Your task to perform on an android device: turn on translation in the chrome app Image 0: 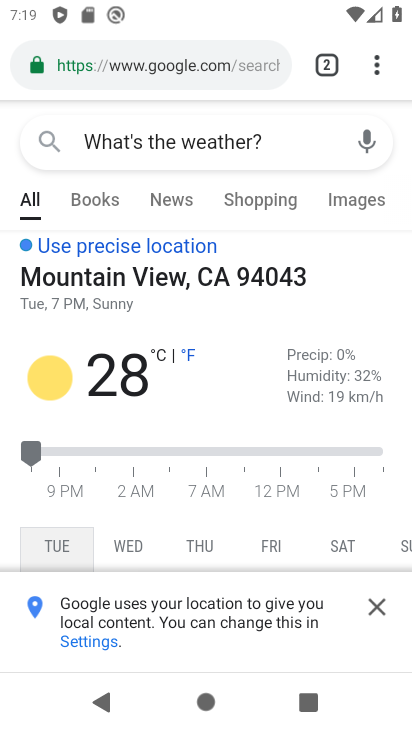
Step 0: press home button
Your task to perform on an android device: turn on translation in the chrome app Image 1: 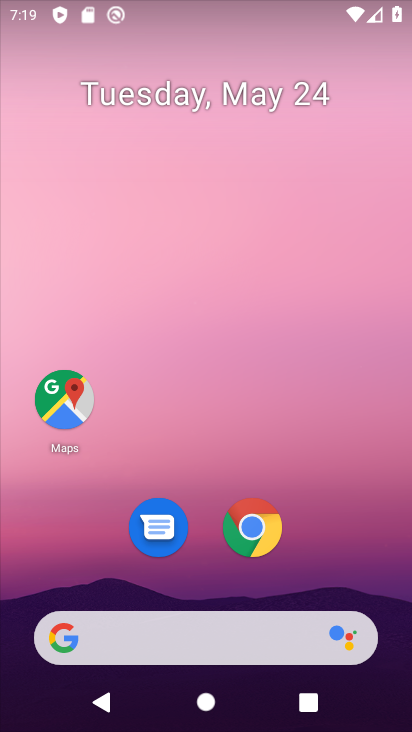
Step 1: drag from (267, 577) to (336, 158)
Your task to perform on an android device: turn on translation in the chrome app Image 2: 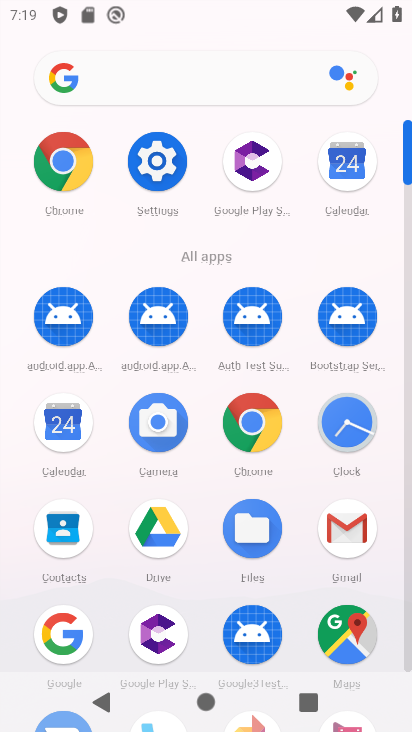
Step 2: click (69, 154)
Your task to perform on an android device: turn on translation in the chrome app Image 3: 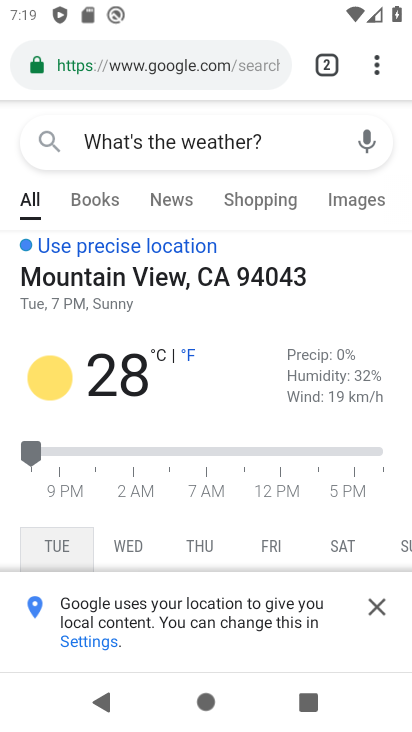
Step 3: click (385, 57)
Your task to perform on an android device: turn on translation in the chrome app Image 4: 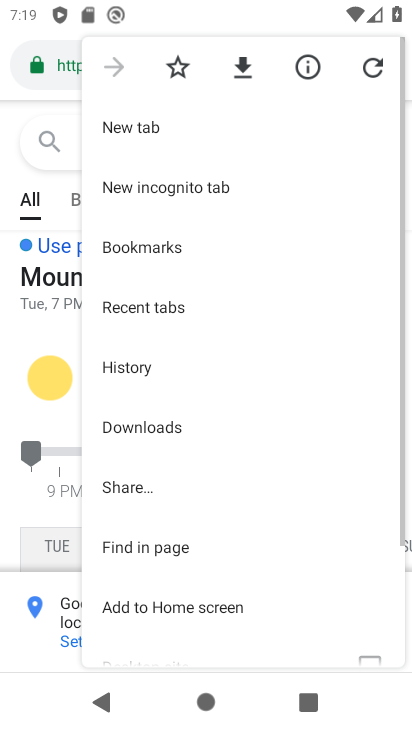
Step 4: click (164, 134)
Your task to perform on an android device: turn on translation in the chrome app Image 5: 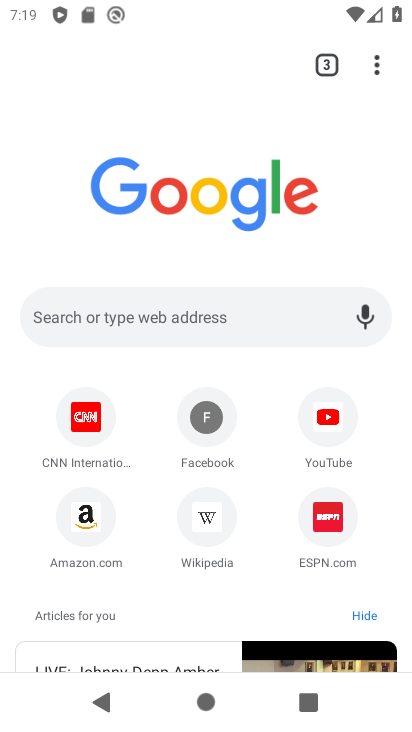
Step 5: click (134, 319)
Your task to perform on an android device: turn on translation in the chrome app Image 6: 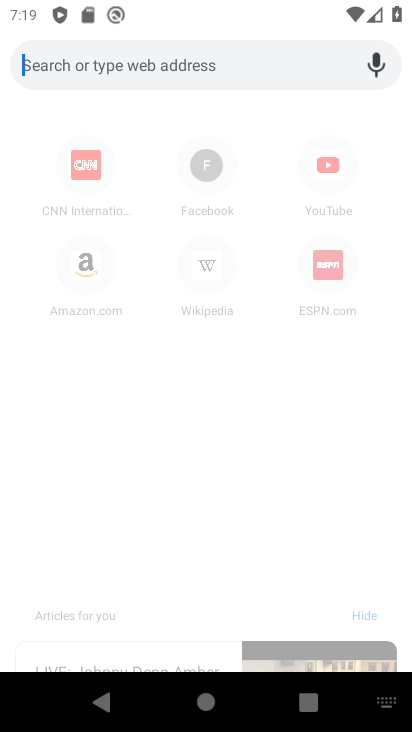
Step 6: type "turn on translation in the chrome app"
Your task to perform on an android device: turn on translation in the chrome app Image 7: 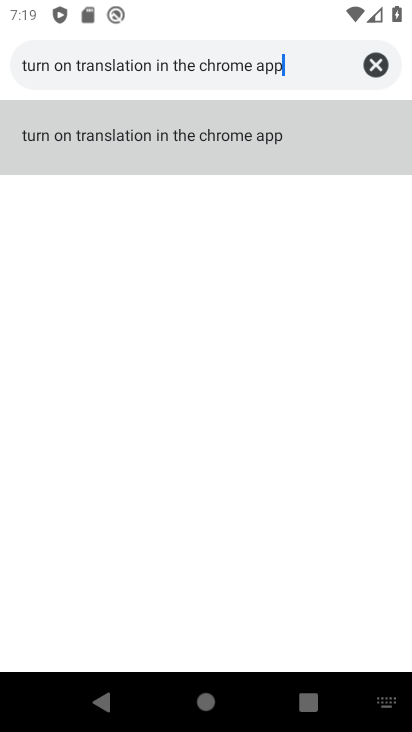
Step 7: click (254, 129)
Your task to perform on an android device: turn on translation in the chrome app Image 8: 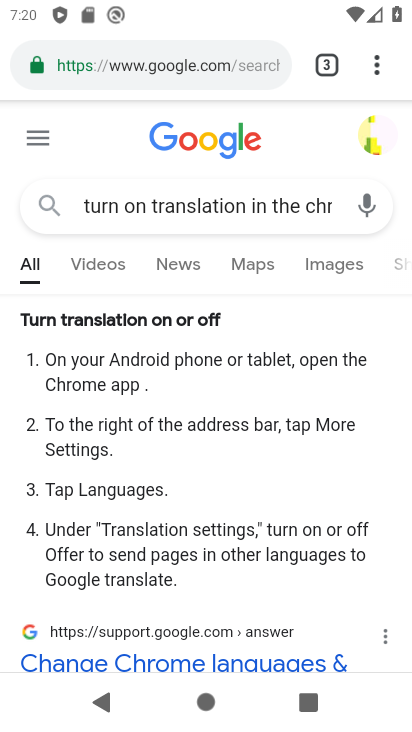
Step 8: press home button
Your task to perform on an android device: turn on translation in the chrome app Image 9: 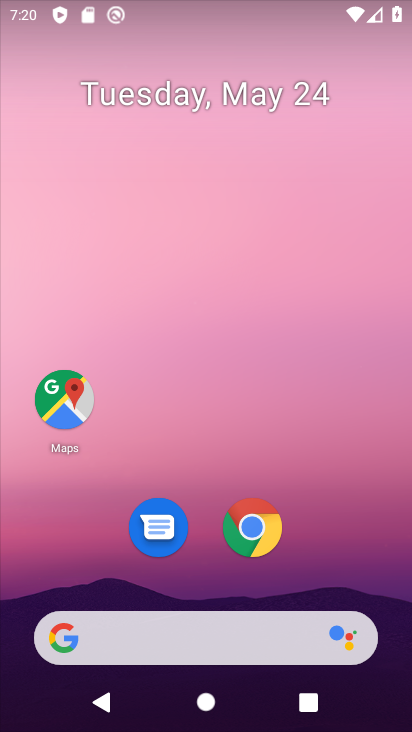
Step 9: drag from (296, 608) to (317, 188)
Your task to perform on an android device: turn on translation in the chrome app Image 10: 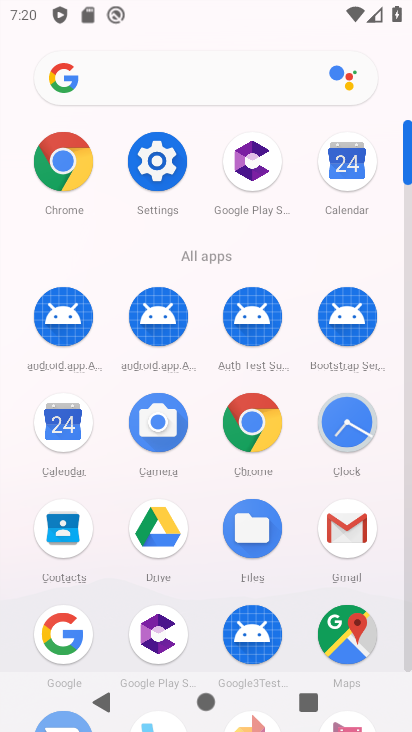
Step 10: click (264, 417)
Your task to perform on an android device: turn on translation in the chrome app Image 11: 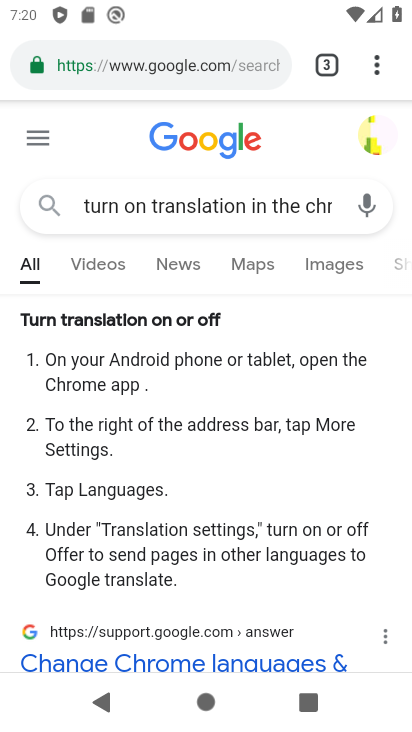
Step 11: click (378, 51)
Your task to perform on an android device: turn on translation in the chrome app Image 12: 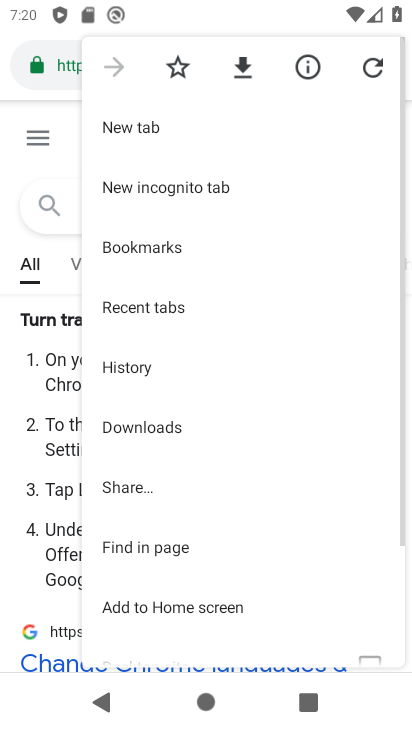
Step 12: drag from (239, 468) to (317, 173)
Your task to perform on an android device: turn on translation in the chrome app Image 13: 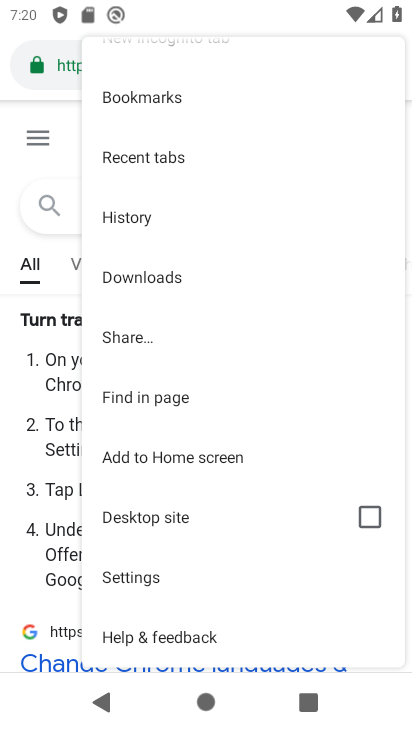
Step 13: click (124, 580)
Your task to perform on an android device: turn on translation in the chrome app Image 14: 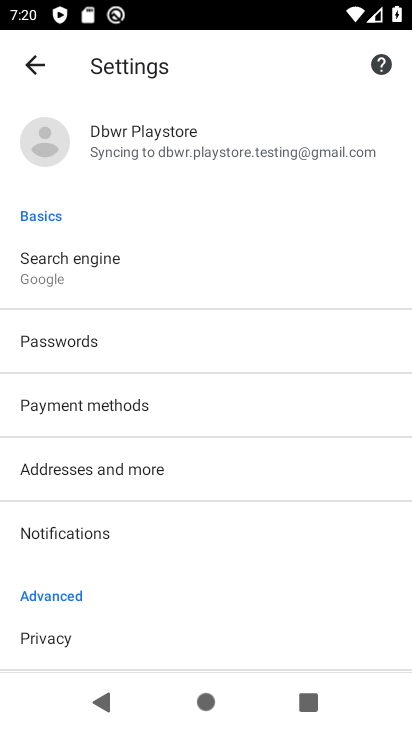
Step 14: drag from (210, 575) to (262, 247)
Your task to perform on an android device: turn on translation in the chrome app Image 15: 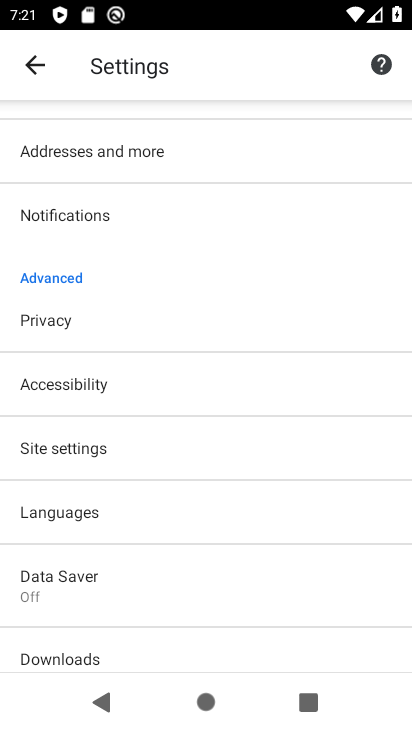
Step 15: click (183, 506)
Your task to perform on an android device: turn on translation in the chrome app Image 16: 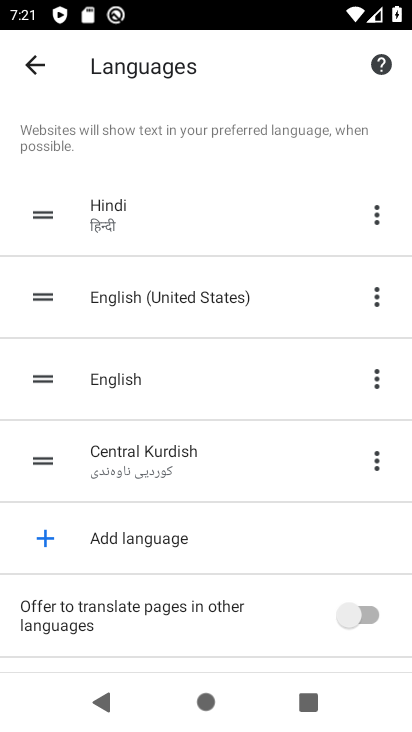
Step 16: click (361, 589)
Your task to perform on an android device: turn on translation in the chrome app Image 17: 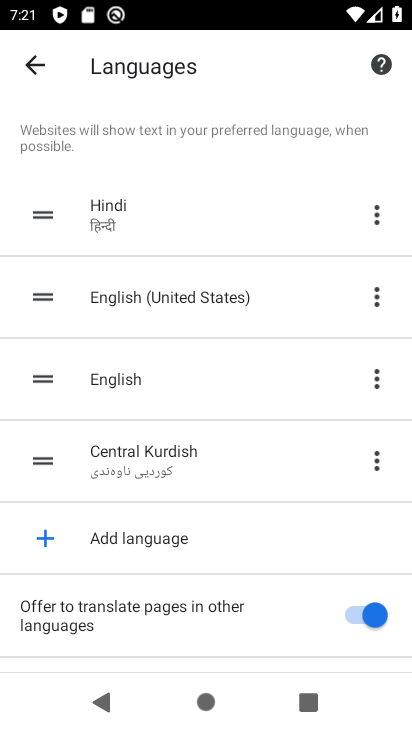
Step 17: task complete